Your task to perform on an android device: Go to calendar. Show me events next week Image 0: 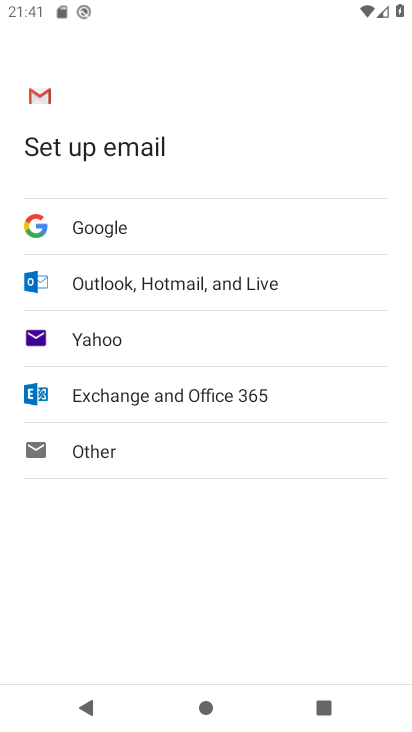
Step 0: press home button
Your task to perform on an android device: Go to calendar. Show me events next week Image 1: 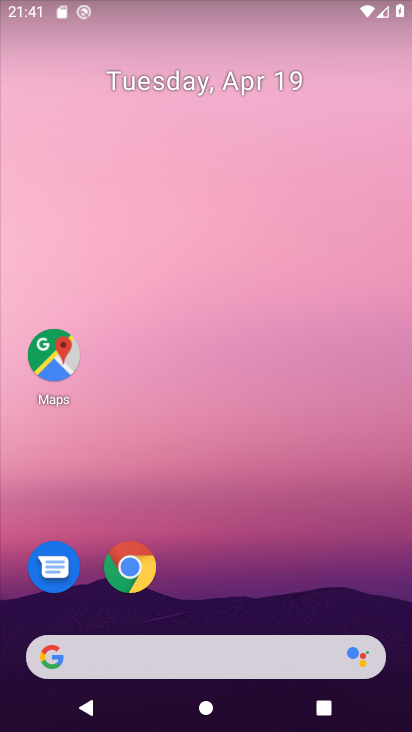
Step 1: drag from (282, 609) to (307, 59)
Your task to perform on an android device: Go to calendar. Show me events next week Image 2: 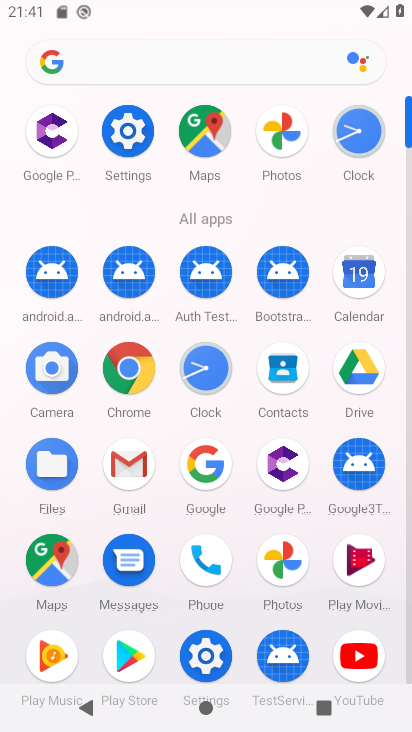
Step 2: click (363, 269)
Your task to perform on an android device: Go to calendar. Show me events next week Image 3: 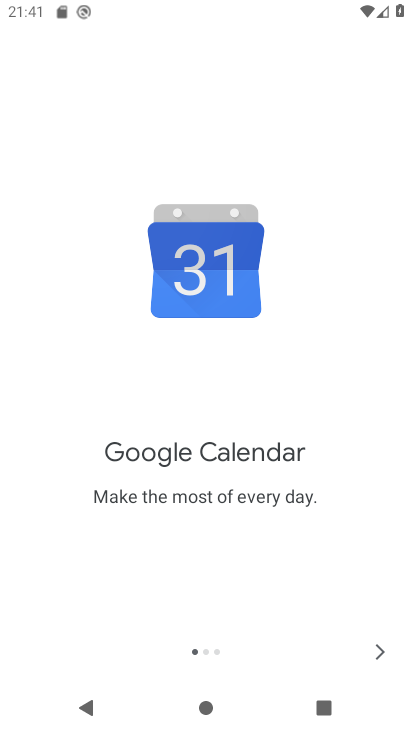
Step 3: click (376, 651)
Your task to perform on an android device: Go to calendar. Show me events next week Image 4: 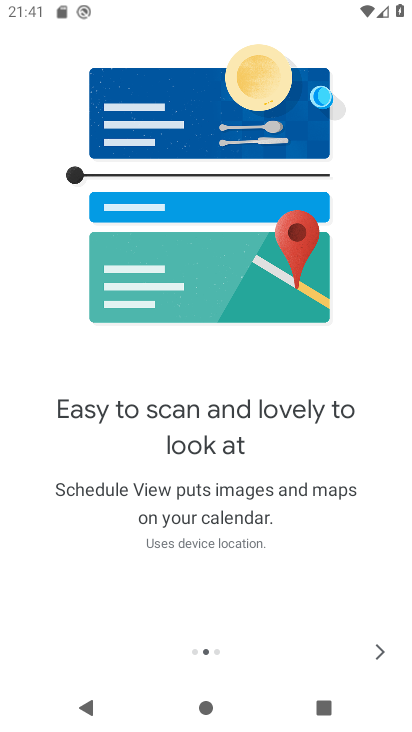
Step 4: click (376, 651)
Your task to perform on an android device: Go to calendar. Show me events next week Image 5: 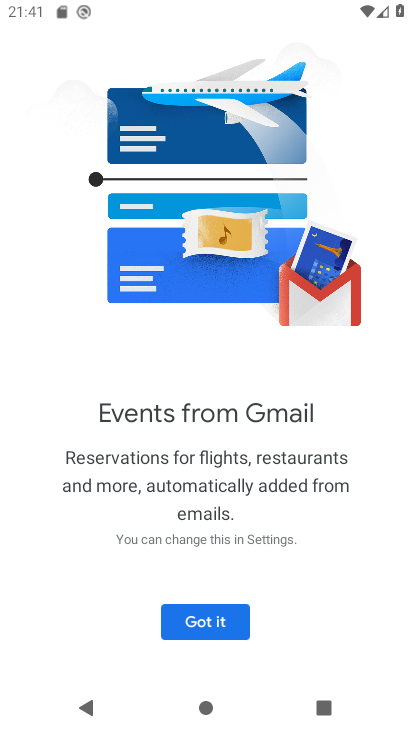
Step 5: click (211, 622)
Your task to perform on an android device: Go to calendar. Show me events next week Image 6: 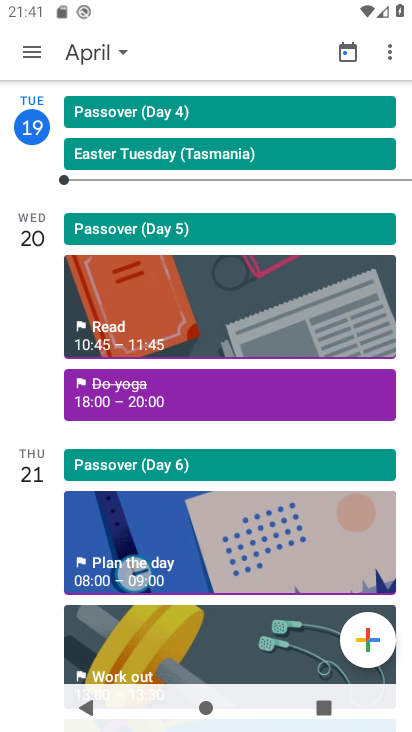
Step 6: click (91, 62)
Your task to perform on an android device: Go to calendar. Show me events next week Image 7: 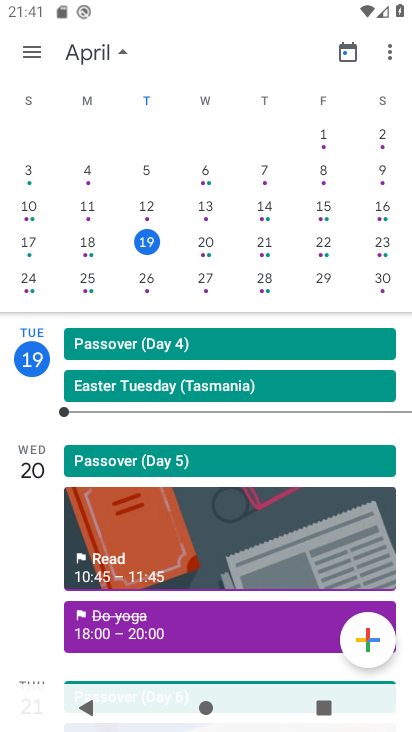
Step 7: click (34, 285)
Your task to perform on an android device: Go to calendar. Show me events next week Image 8: 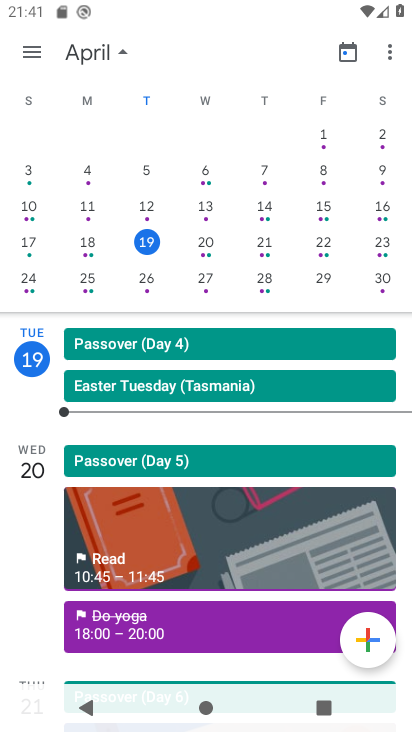
Step 8: click (36, 289)
Your task to perform on an android device: Go to calendar. Show me events next week Image 9: 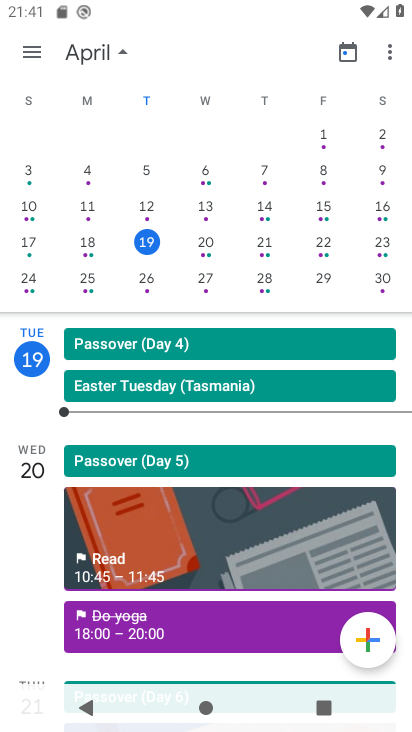
Step 9: click (25, 281)
Your task to perform on an android device: Go to calendar. Show me events next week Image 10: 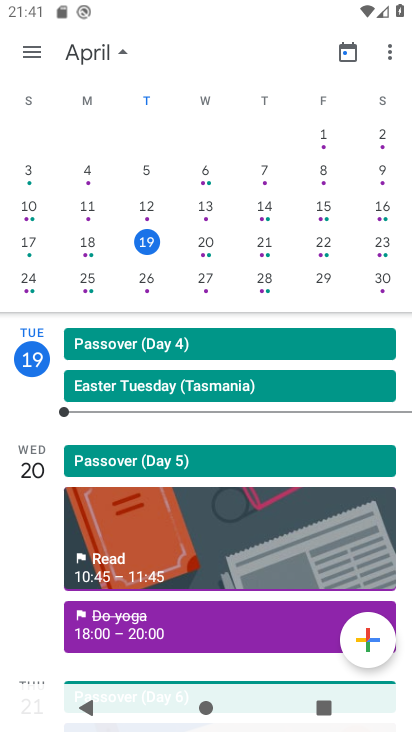
Step 10: click (37, 285)
Your task to perform on an android device: Go to calendar. Show me events next week Image 11: 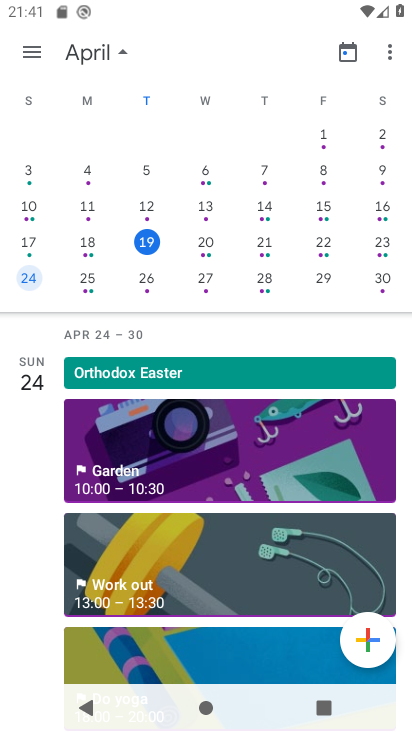
Step 11: click (98, 290)
Your task to perform on an android device: Go to calendar. Show me events next week Image 12: 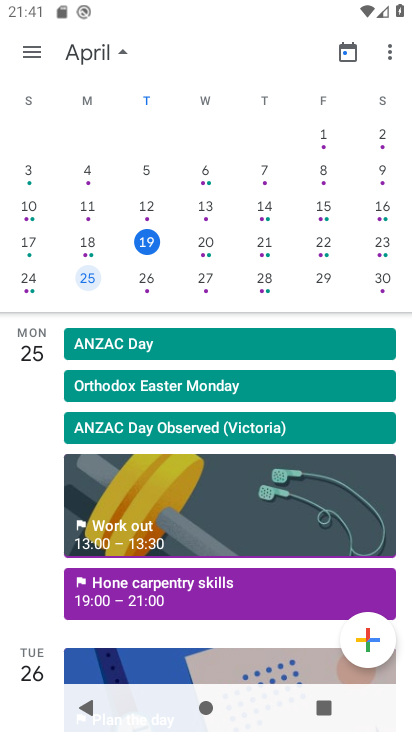
Step 12: click (153, 285)
Your task to perform on an android device: Go to calendar. Show me events next week Image 13: 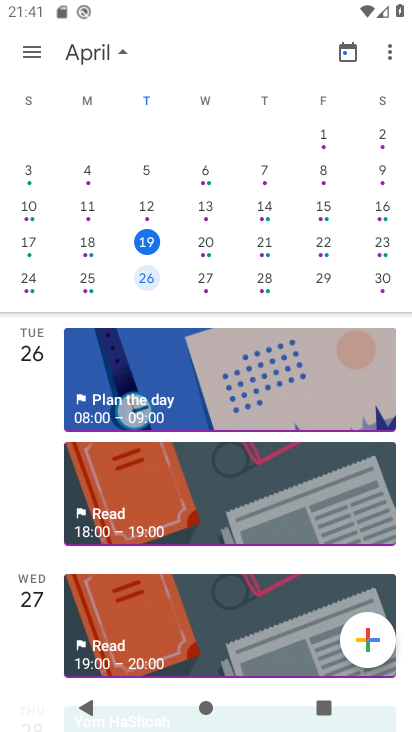
Step 13: click (214, 287)
Your task to perform on an android device: Go to calendar. Show me events next week Image 14: 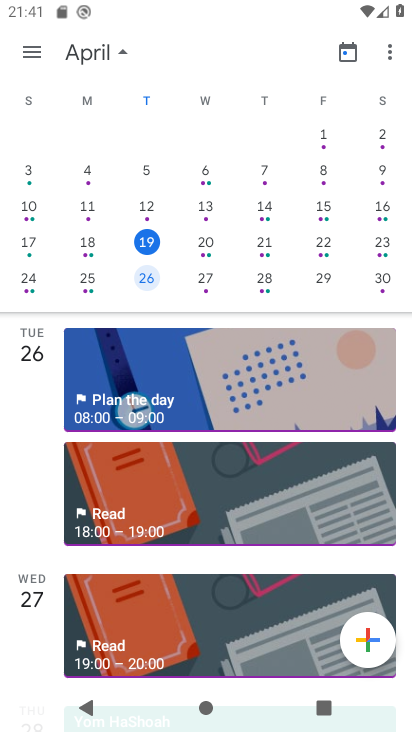
Step 14: click (213, 287)
Your task to perform on an android device: Go to calendar. Show me events next week Image 15: 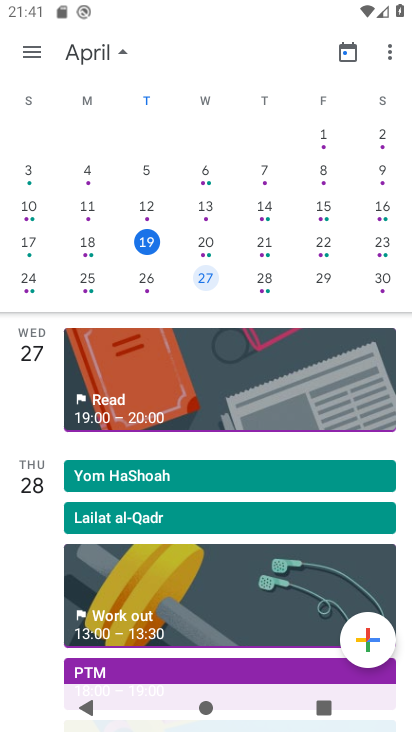
Step 15: click (268, 285)
Your task to perform on an android device: Go to calendar. Show me events next week Image 16: 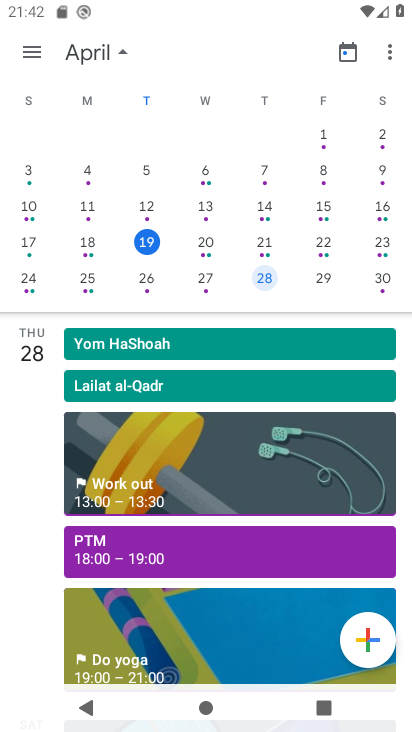
Step 16: click (387, 283)
Your task to perform on an android device: Go to calendar. Show me events next week Image 17: 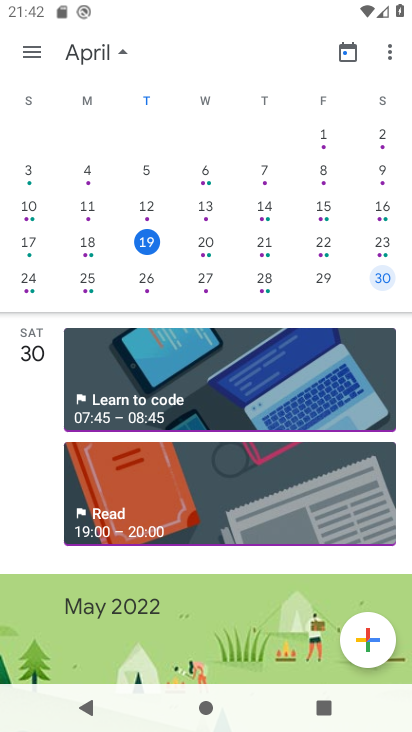
Step 17: task complete